Your task to perform on an android device: Open Google Maps Image 0: 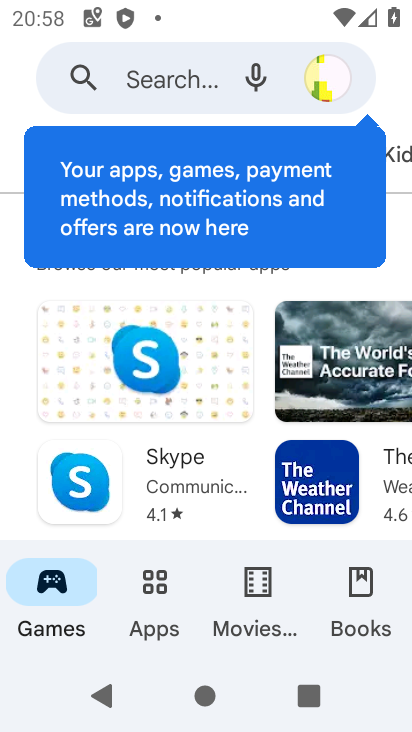
Step 0: press home button
Your task to perform on an android device: Open Google Maps Image 1: 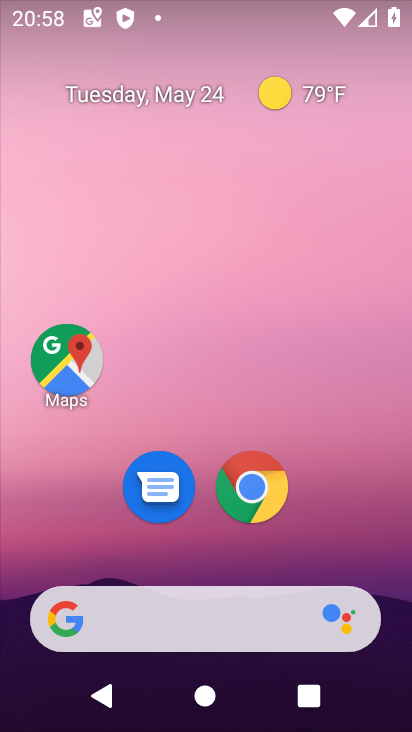
Step 1: click (56, 389)
Your task to perform on an android device: Open Google Maps Image 2: 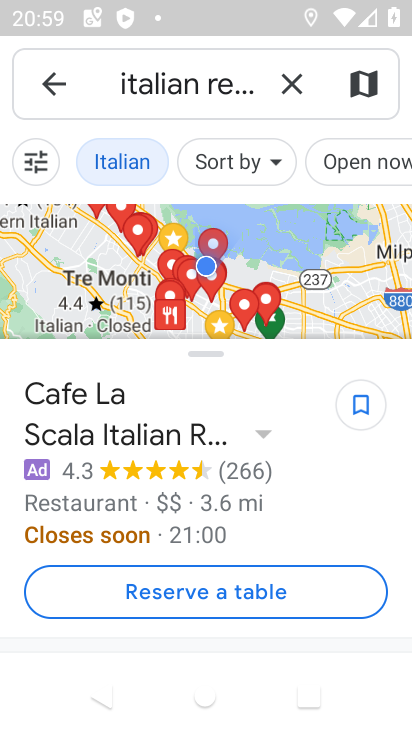
Step 2: task complete